Your task to perform on an android device: What's on my calendar tomorrow? Image 0: 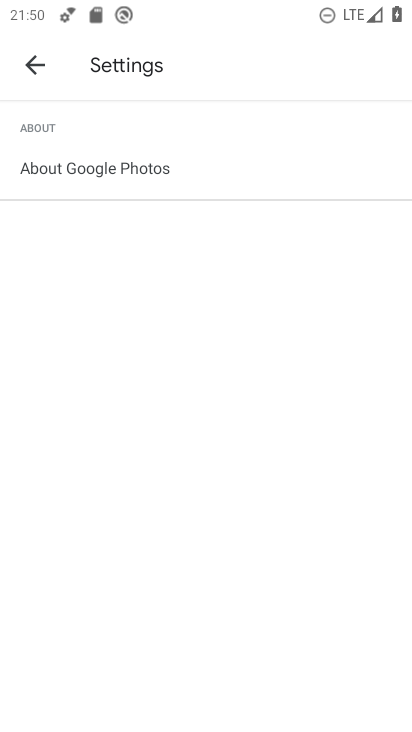
Step 0: press home button
Your task to perform on an android device: What's on my calendar tomorrow? Image 1: 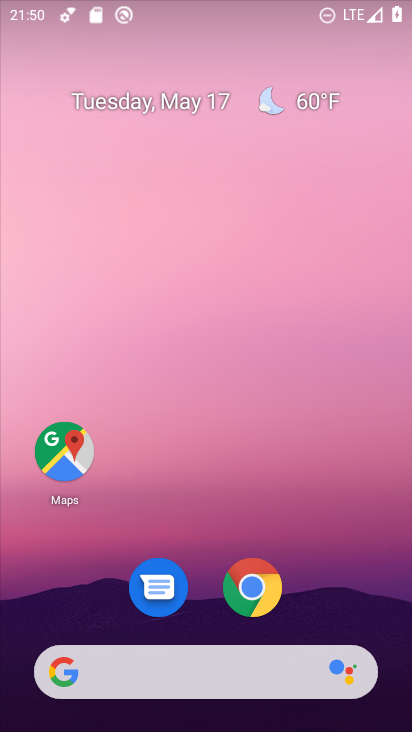
Step 1: drag from (242, 475) to (185, 87)
Your task to perform on an android device: What's on my calendar tomorrow? Image 2: 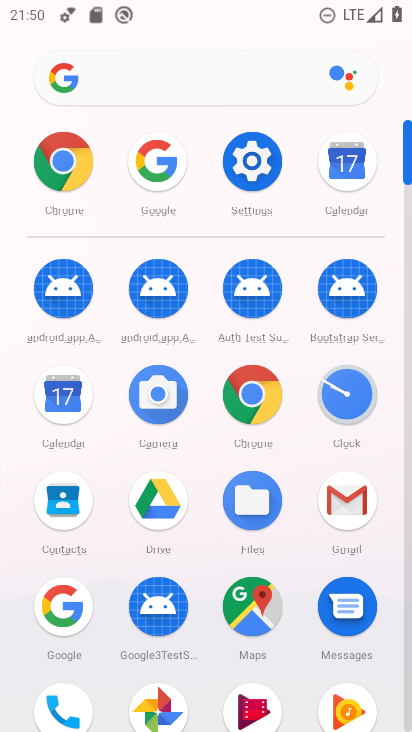
Step 2: click (71, 392)
Your task to perform on an android device: What's on my calendar tomorrow? Image 3: 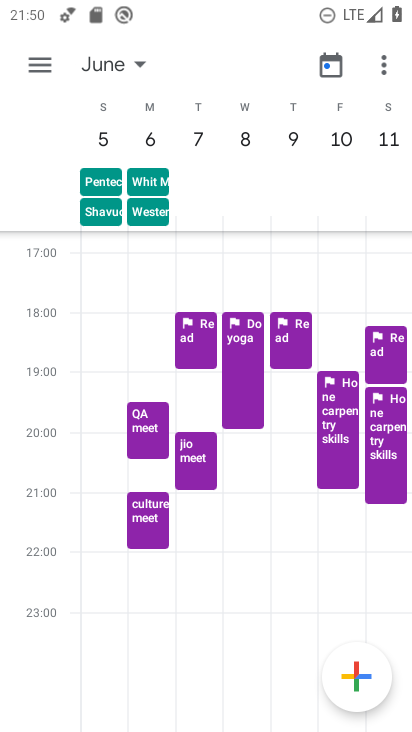
Step 3: click (115, 64)
Your task to perform on an android device: What's on my calendar tomorrow? Image 4: 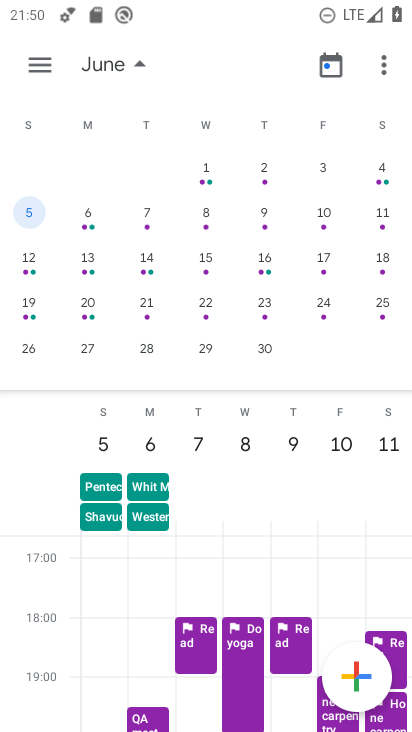
Step 4: click (87, 219)
Your task to perform on an android device: What's on my calendar tomorrow? Image 5: 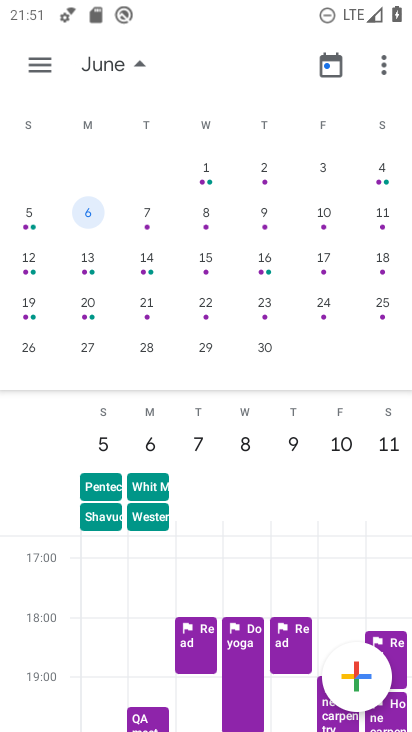
Step 5: drag from (98, 229) to (394, 254)
Your task to perform on an android device: What's on my calendar tomorrow? Image 6: 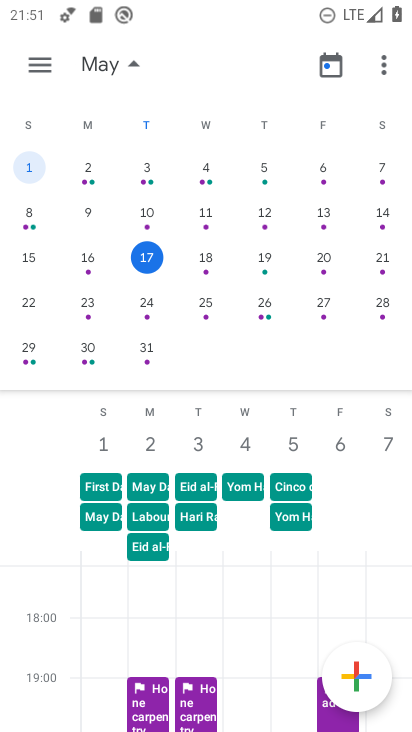
Step 6: click (212, 265)
Your task to perform on an android device: What's on my calendar tomorrow? Image 7: 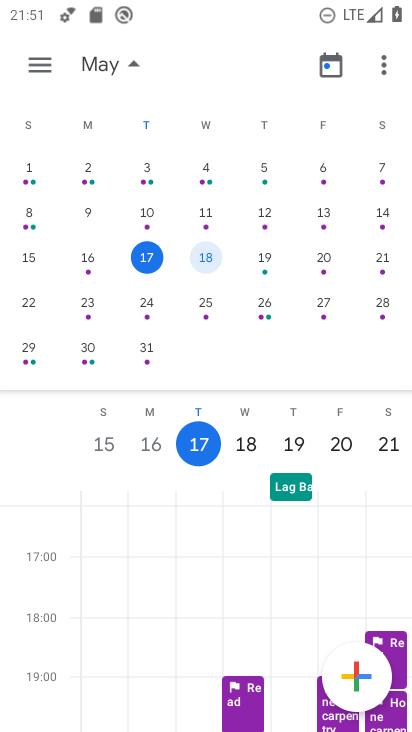
Step 7: click (119, 72)
Your task to perform on an android device: What's on my calendar tomorrow? Image 8: 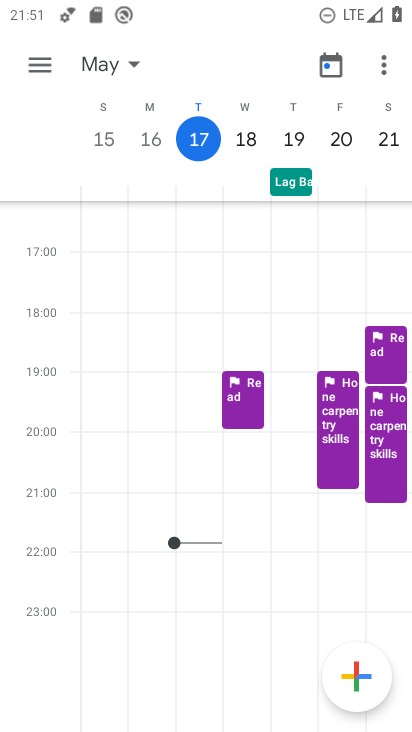
Step 8: click (240, 134)
Your task to perform on an android device: What's on my calendar tomorrow? Image 9: 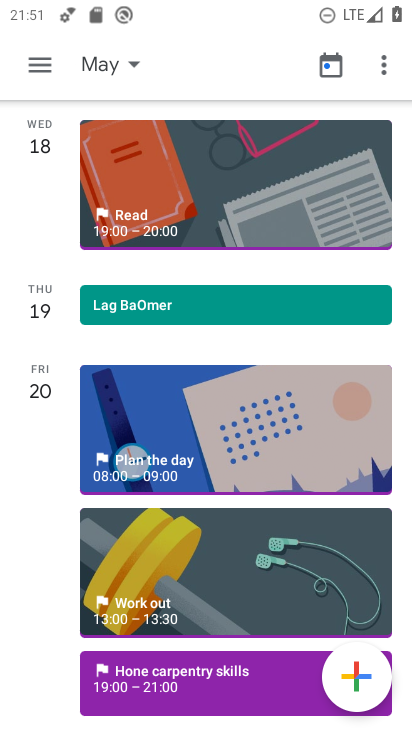
Step 9: click (254, 196)
Your task to perform on an android device: What's on my calendar tomorrow? Image 10: 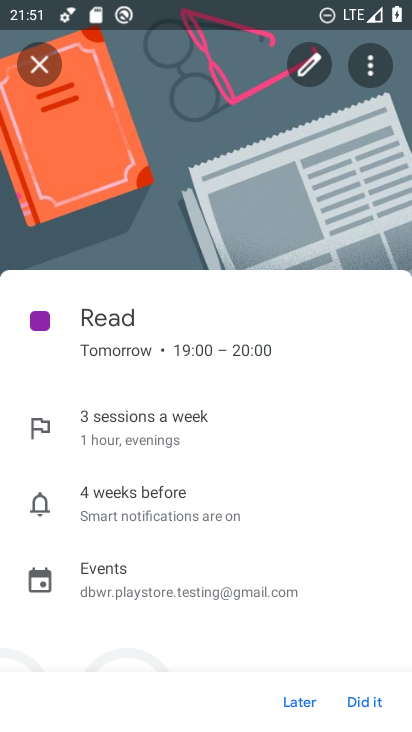
Step 10: task complete